Your task to perform on an android device: What is the recent news? Image 0: 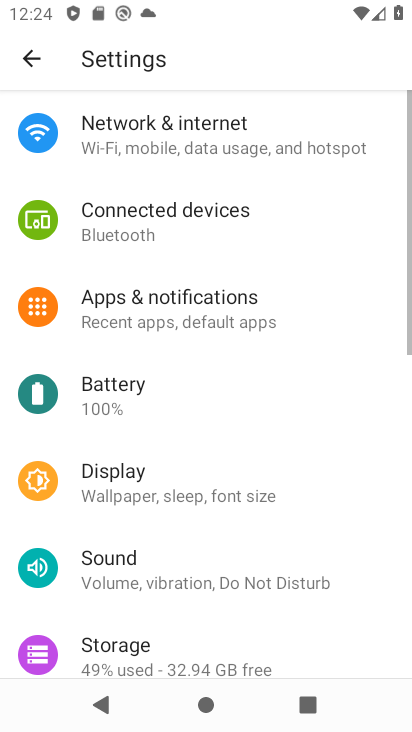
Step 0: press home button
Your task to perform on an android device: What is the recent news? Image 1: 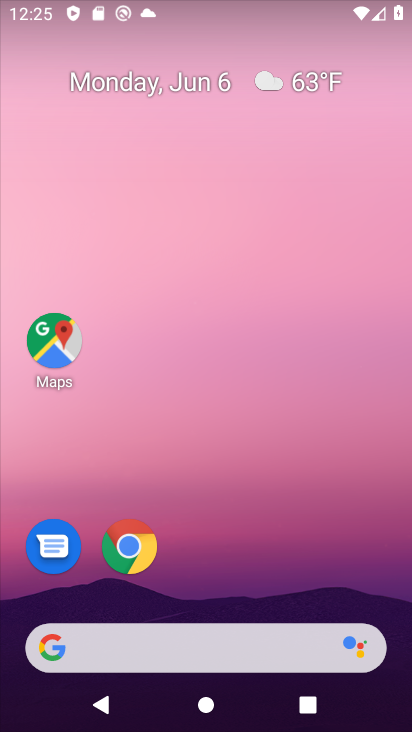
Step 1: click (145, 652)
Your task to perform on an android device: What is the recent news? Image 2: 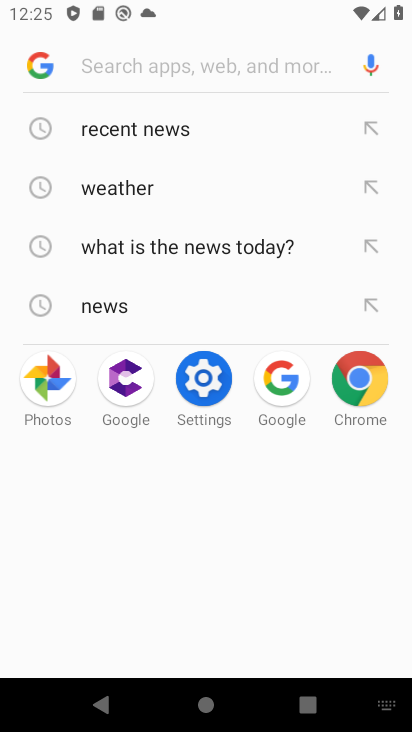
Step 2: click (196, 124)
Your task to perform on an android device: What is the recent news? Image 3: 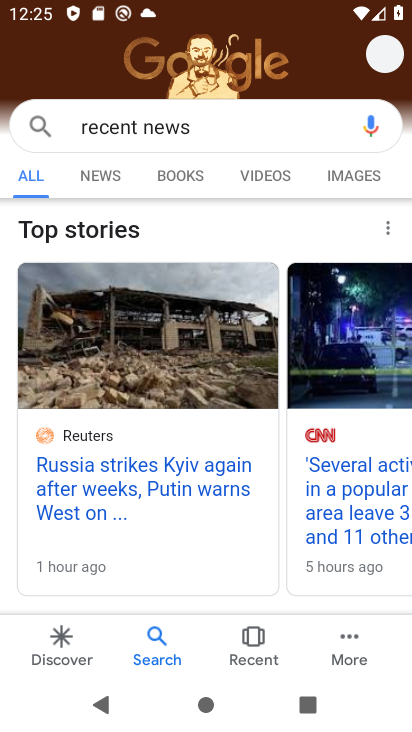
Step 3: click (94, 155)
Your task to perform on an android device: What is the recent news? Image 4: 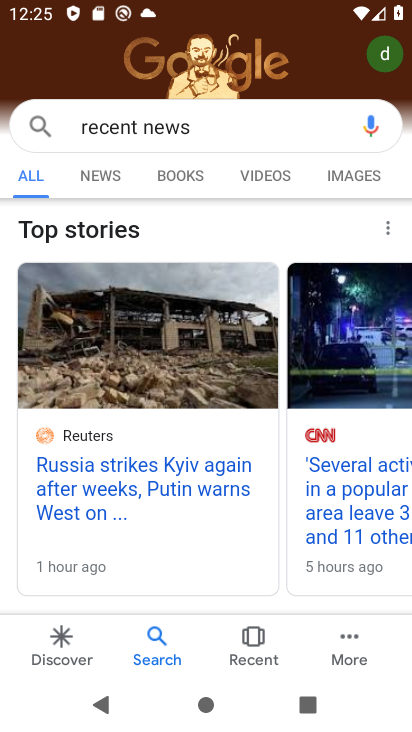
Step 4: task complete